Your task to perform on an android device: Search for macbook pro 15 inch on ebay.com, select the first entry, and add it to the cart. Image 0: 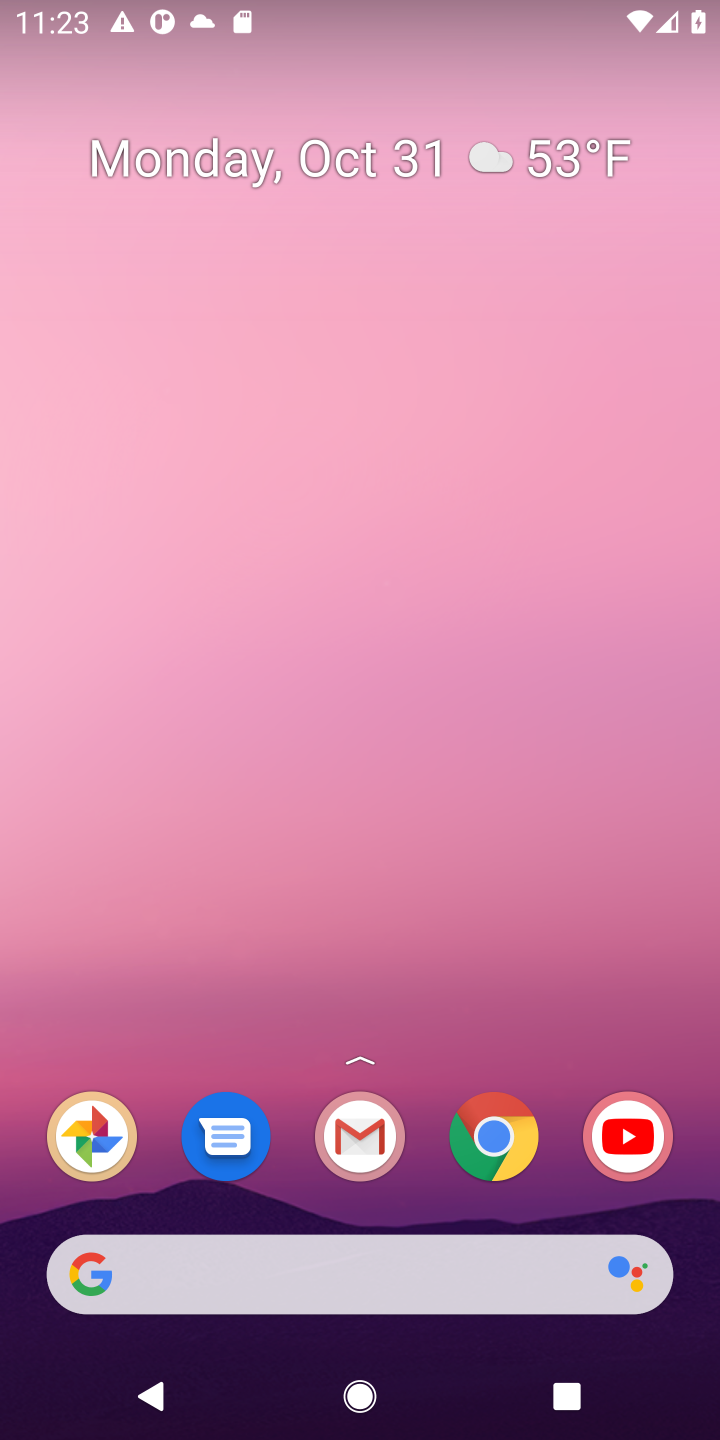
Step 0: press home button
Your task to perform on an android device: Search for macbook pro 15 inch on ebay.com, select the first entry, and add it to the cart. Image 1: 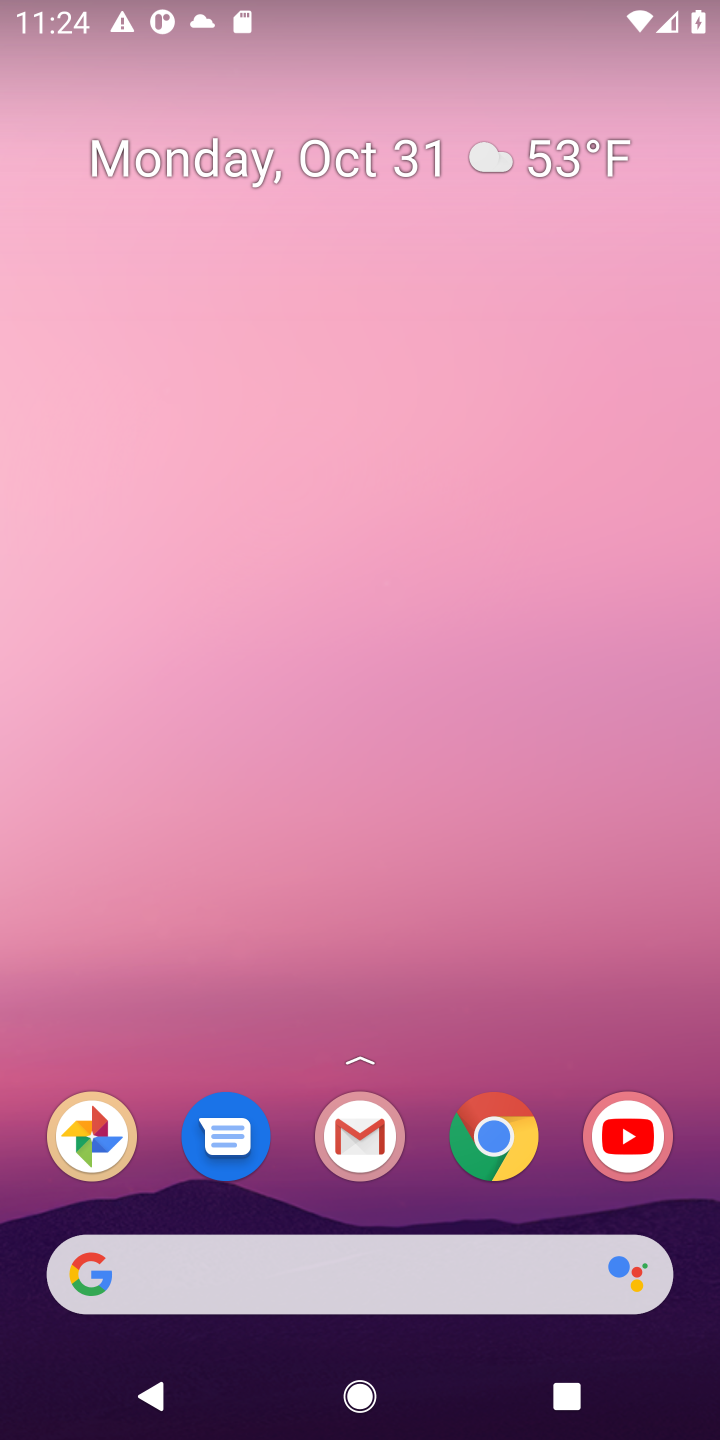
Step 1: click (124, 1270)
Your task to perform on an android device: Search for macbook pro 15 inch on ebay.com, select the first entry, and add it to the cart. Image 2: 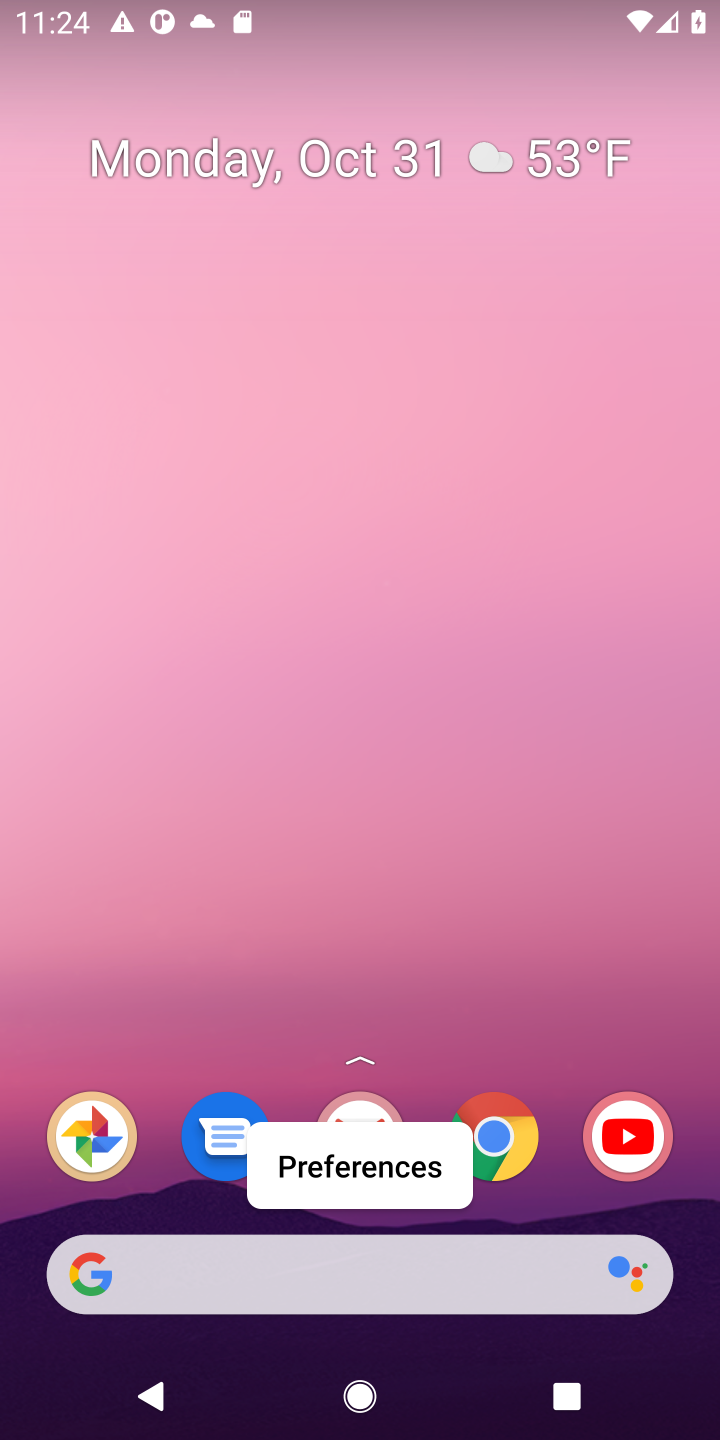
Step 2: click (132, 1268)
Your task to perform on an android device: Search for macbook pro 15 inch on ebay.com, select the first entry, and add it to the cart. Image 3: 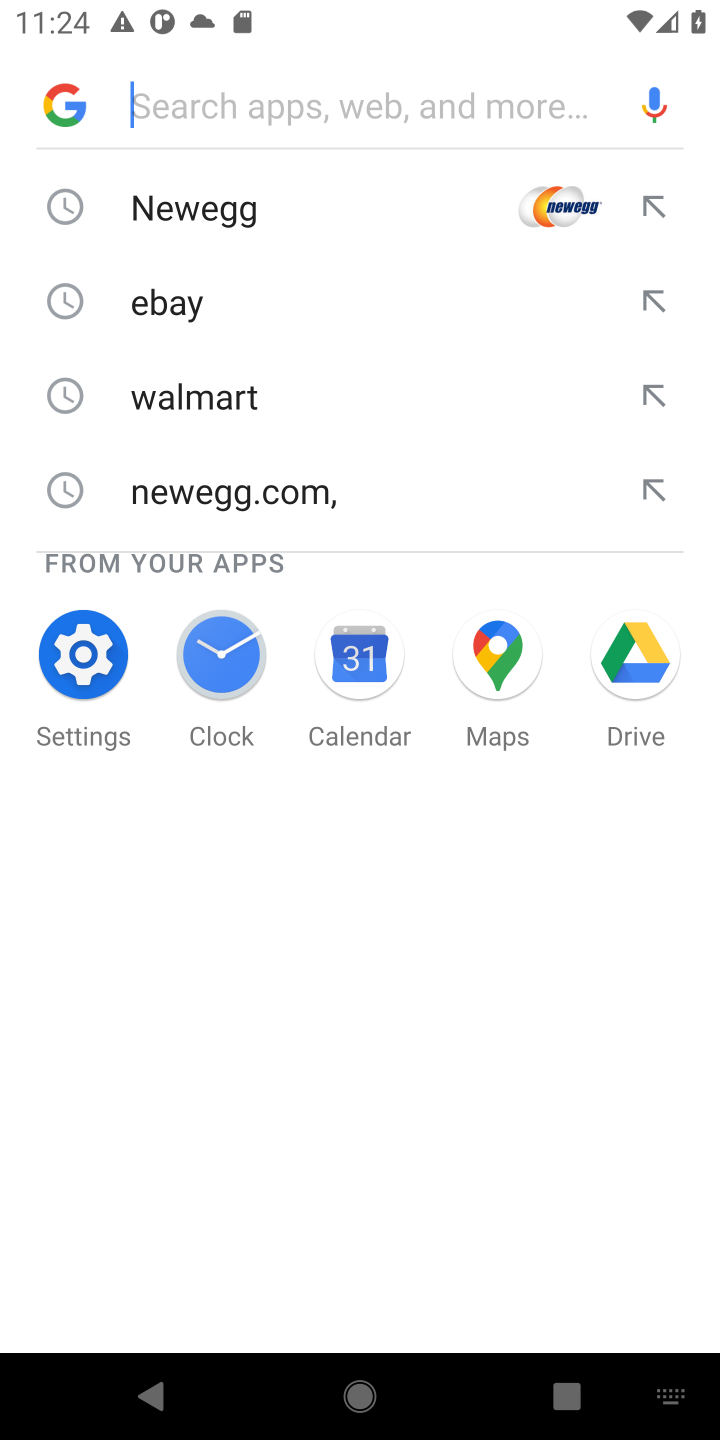
Step 3: type " ebay.com"
Your task to perform on an android device: Search for macbook pro 15 inch on ebay.com, select the first entry, and add it to the cart. Image 4: 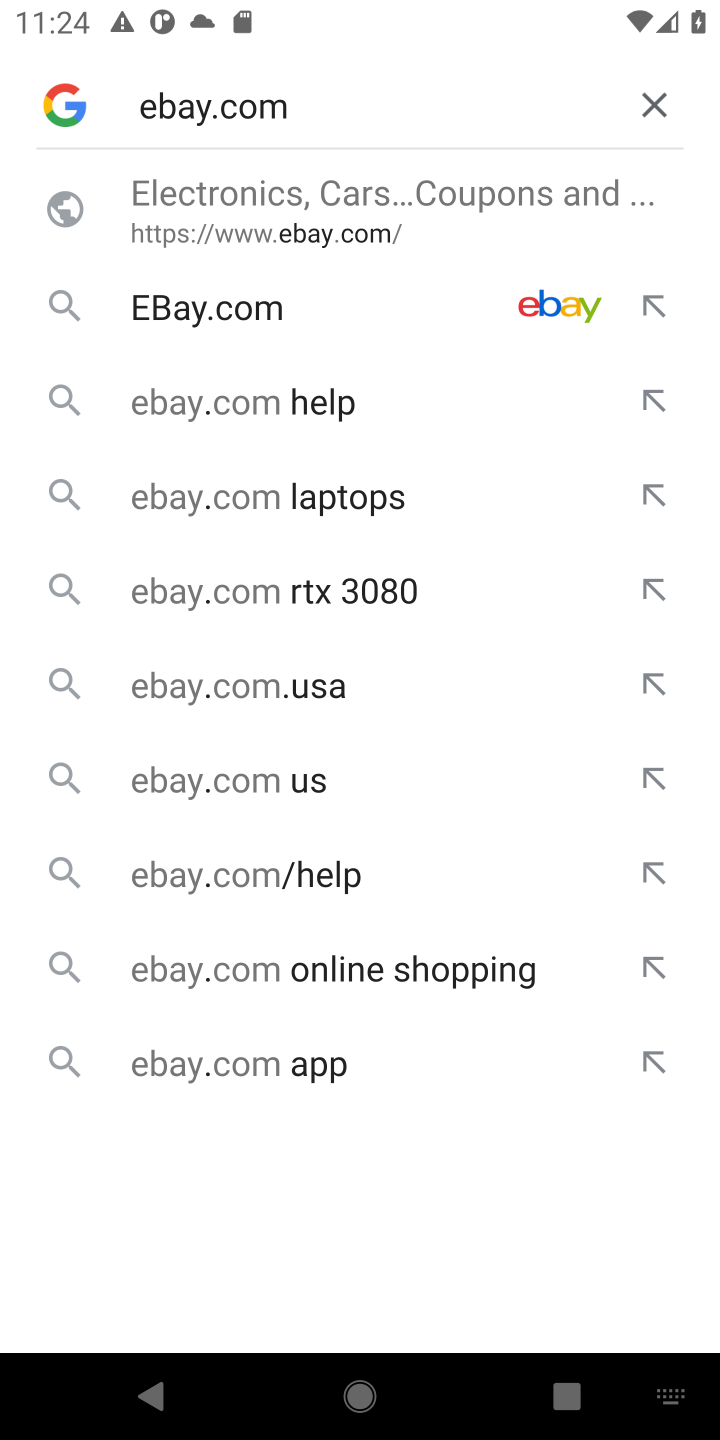
Step 4: press enter
Your task to perform on an android device: Search for macbook pro 15 inch on ebay.com, select the first entry, and add it to the cart. Image 5: 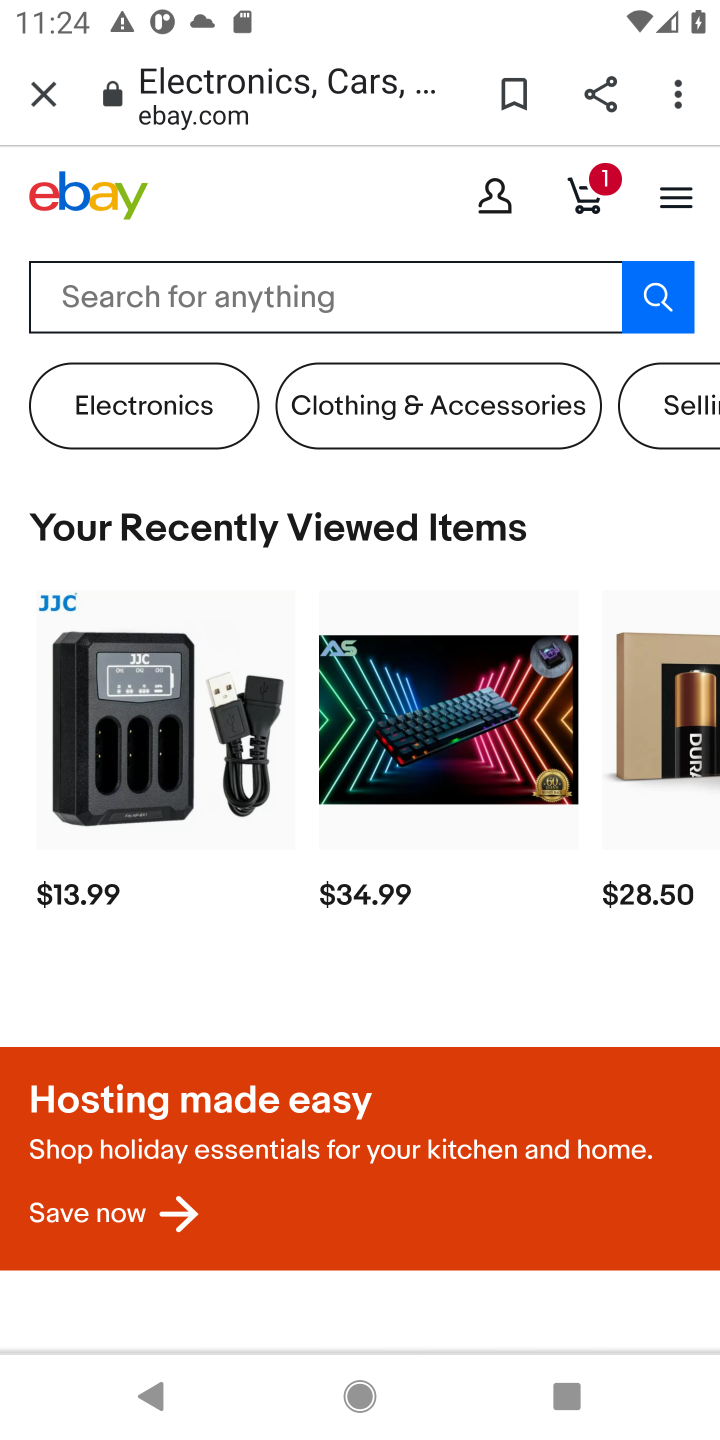
Step 5: click (90, 288)
Your task to perform on an android device: Search for macbook pro 15 inch on ebay.com, select the first entry, and add it to the cart. Image 6: 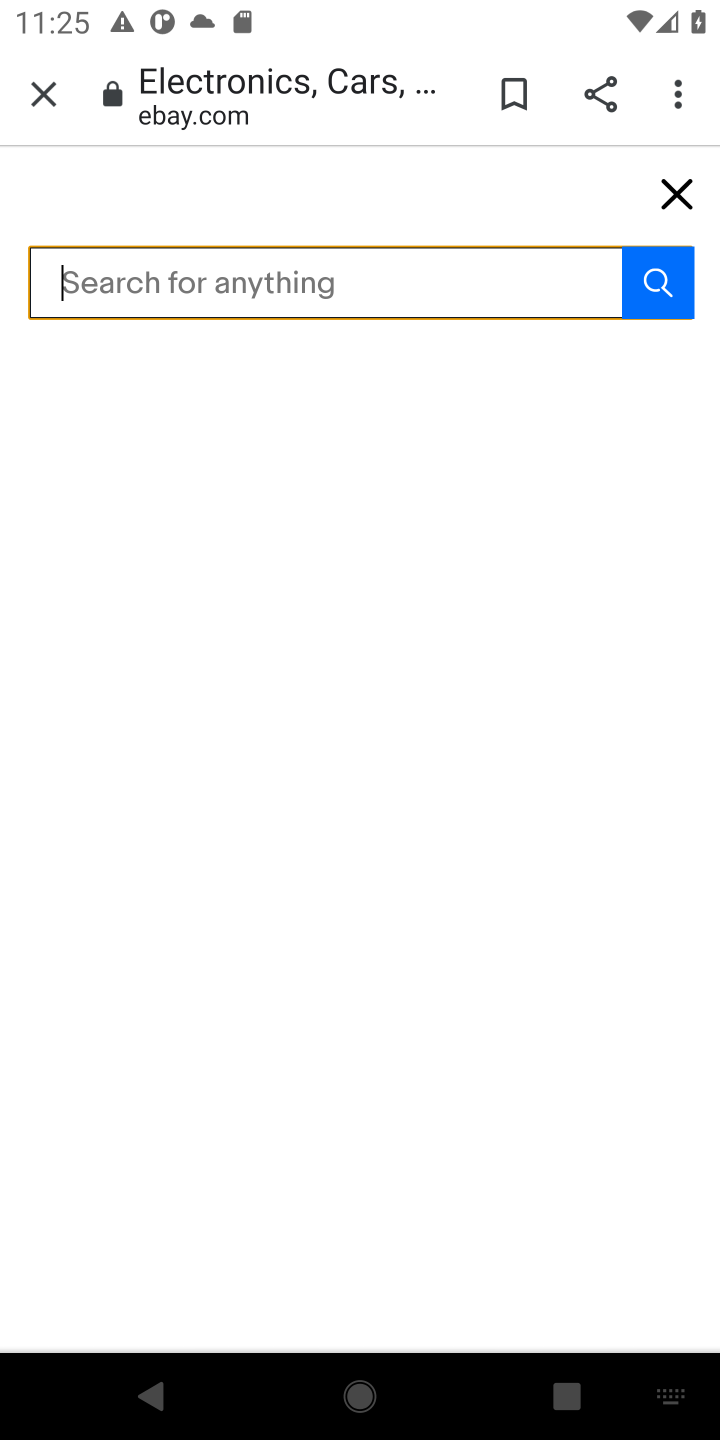
Step 6: type " macbook pro 15 inch"
Your task to perform on an android device: Search for macbook pro 15 inch on ebay.com, select the first entry, and add it to the cart. Image 7: 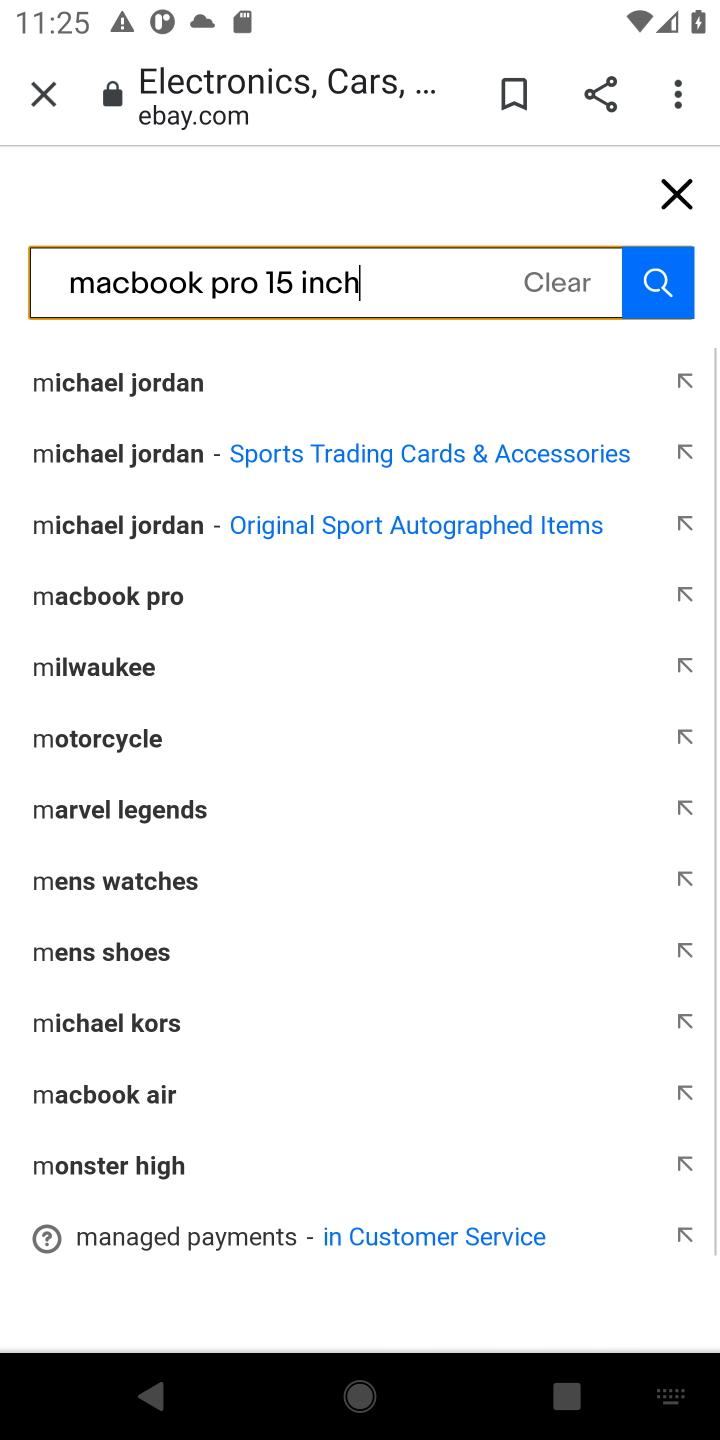
Step 7: press enter
Your task to perform on an android device: Search for macbook pro 15 inch on ebay.com, select the first entry, and add it to the cart. Image 8: 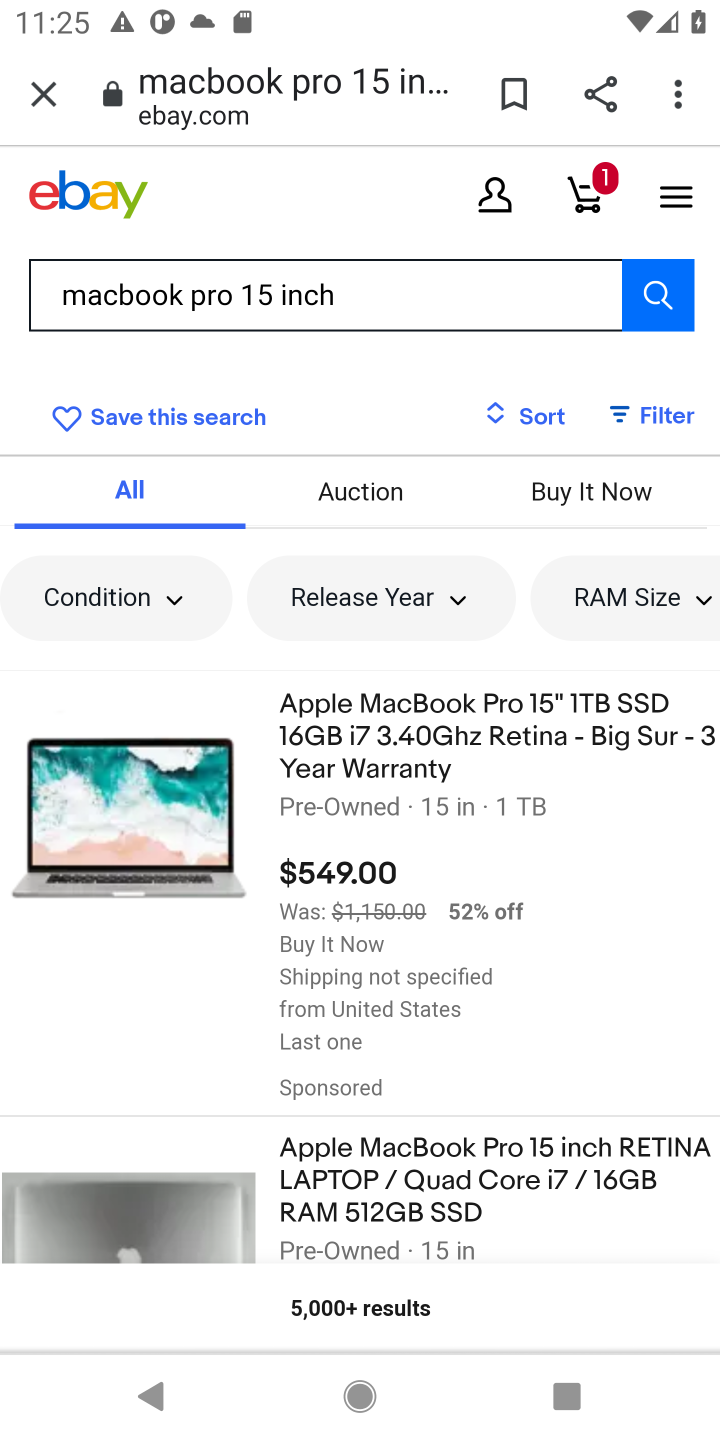
Step 8: click (461, 1168)
Your task to perform on an android device: Search for macbook pro 15 inch on ebay.com, select the first entry, and add it to the cart. Image 9: 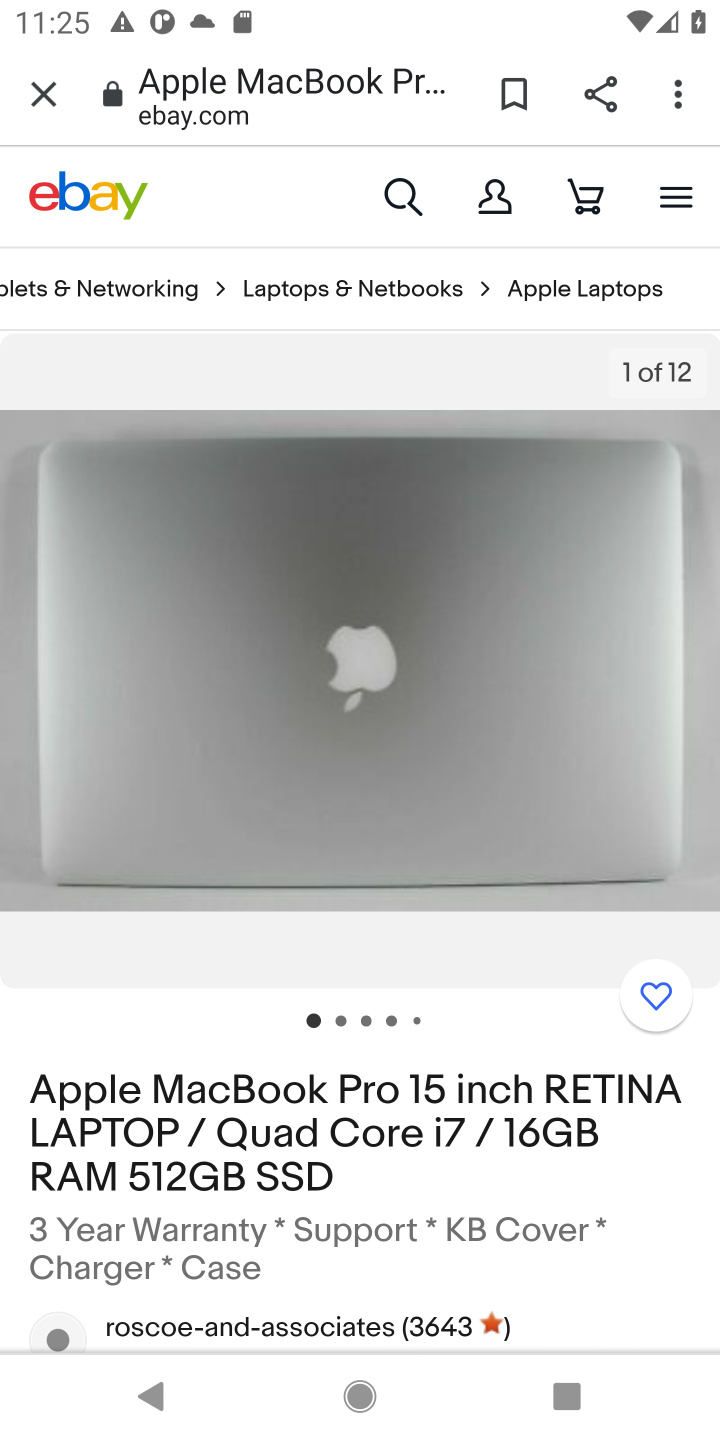
Step 9: drag from (397, 1197) to (440, 763)
Your task to perform on an android device: Search for macbook pro 15 inch on ebay.com, select the first entry, and add it to the cart. Image 10: 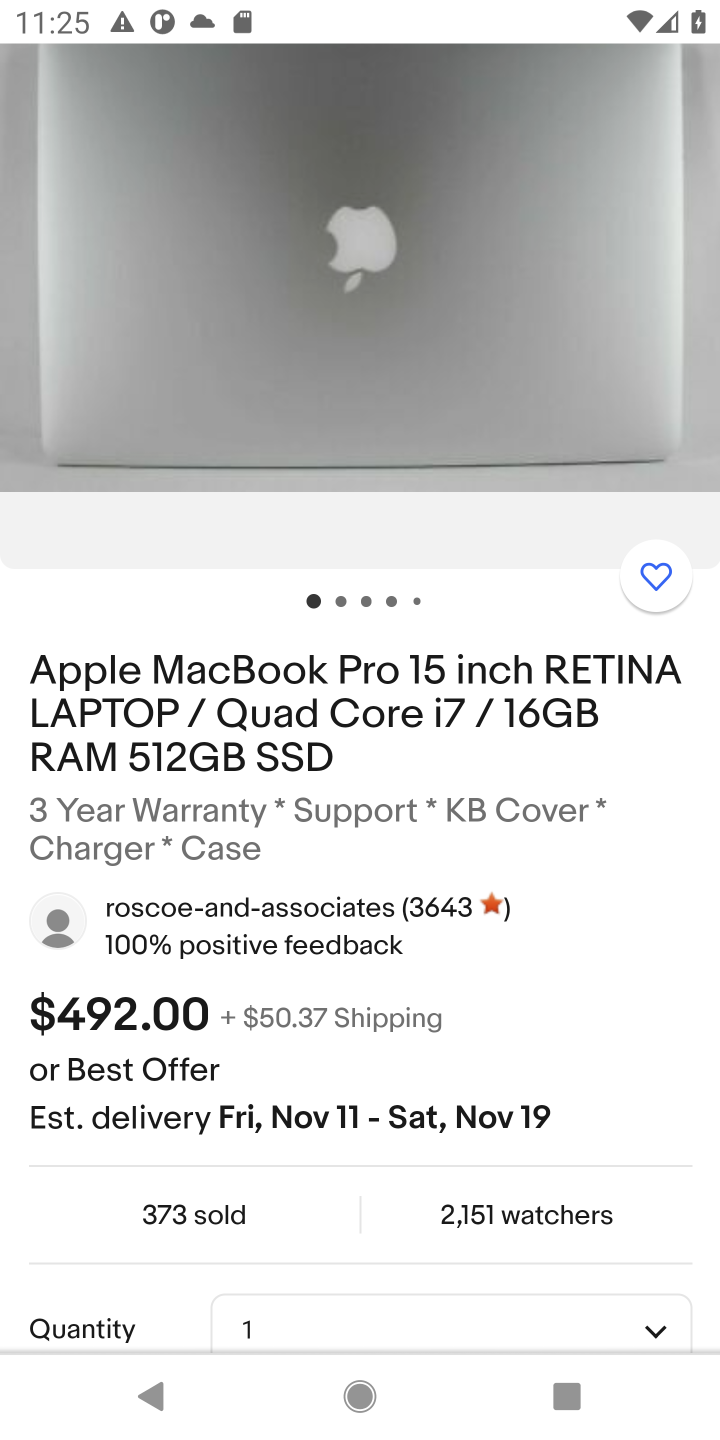
Step 10: drag from (342, 1096) to (406, 559)
Your task to perform on an android device: Search for macbook pro 15 inch on ebay.com, select the first entry, and add it to the cart. Image 11: 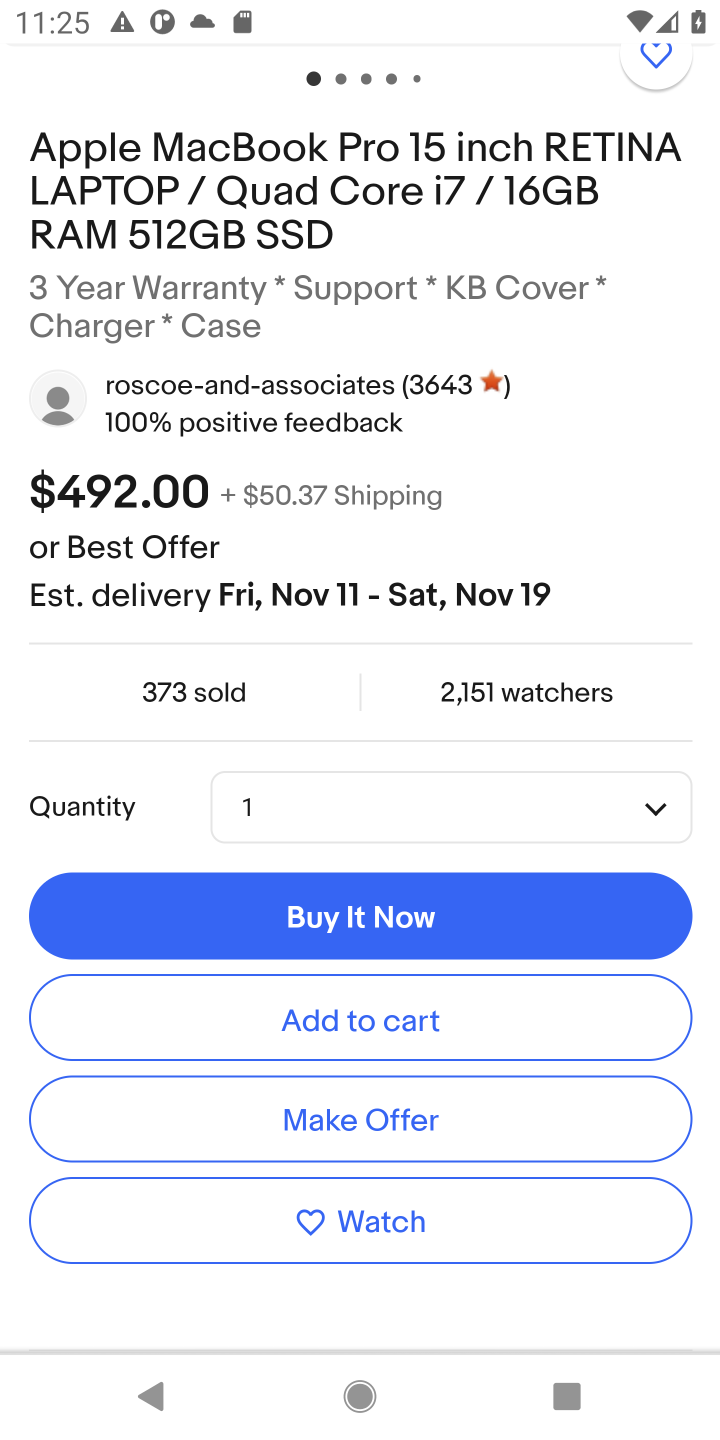
Step 11: drag from (426, 1118) to (490, 485)
Your task to perform on an android device: Search for macbook pro 15 inch on ebay.com, select the first entry, and add it to the cart. Image 12: 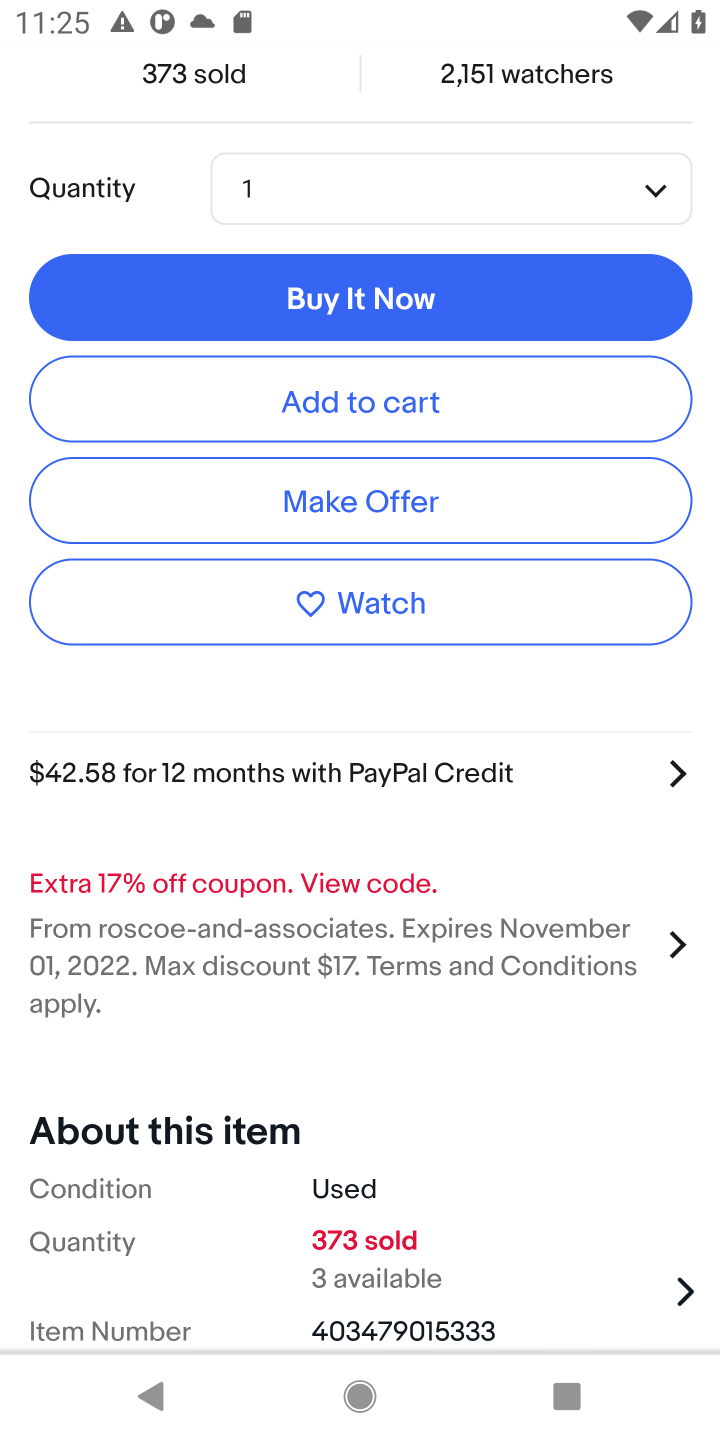
Step 12: click (349, 385)
Your task to perform on an android device: Search for macbook pro 15 inch on ebay.com, select the first entry, and add it to the cart. Image 13: 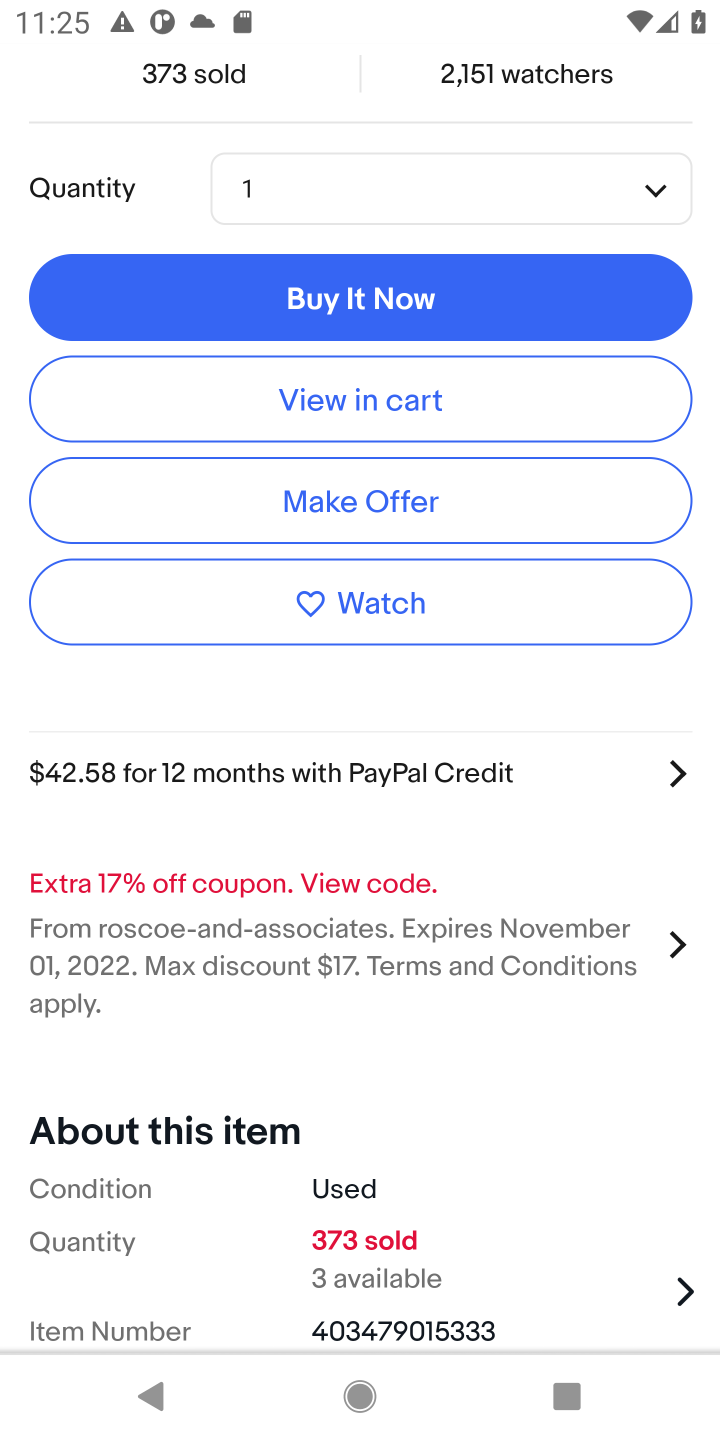
Step 13: task complete